Your task to perform on an android device: search for starred emails in the gmail app Image 0: 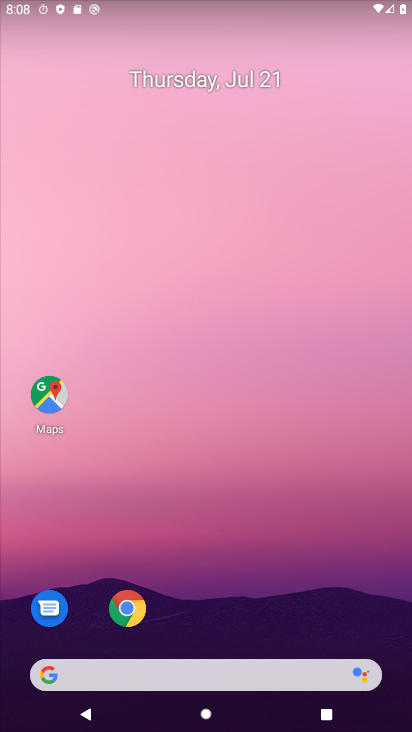
Step 0: press home button
Your task to perform on an android device: search for starred emails in the gmail app Image 1: 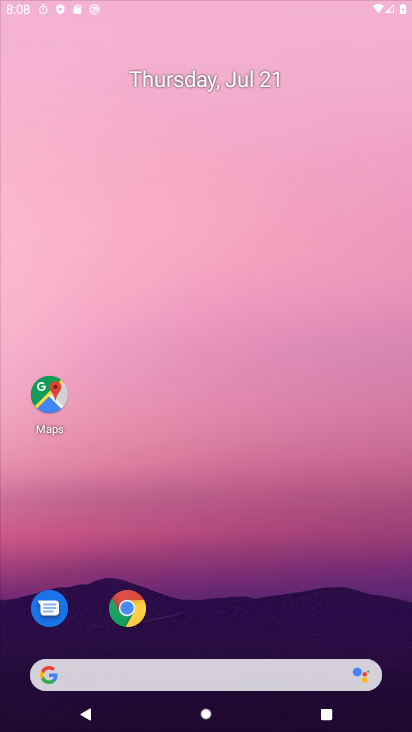
Step 1: click (49, 386)
Your task to perform on an android device: search for starred emails in the gmail app Image 2: 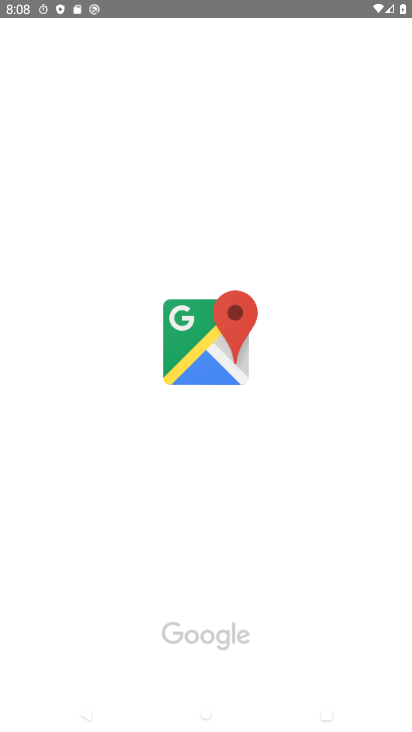
Step 2: press home button
Your task to perform on an android device: search for starred emails in the gmail app Image 3: 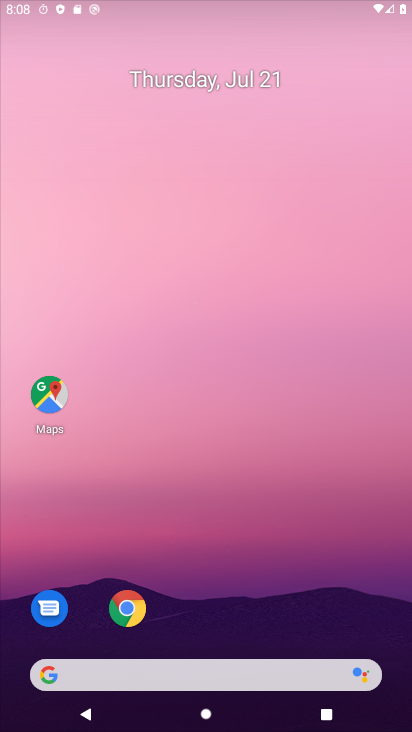
Step 3: drag from (273, 603) to (308, 0)
Your task to perform on an android device: search for starred emails in the gmail app Image 4: 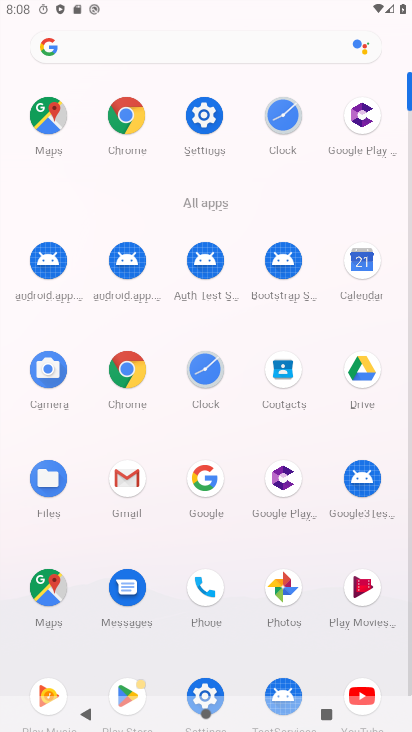
Step 4: click (130, 499)
Your task to perform on an android device: search for starred emails in the gmail app Image 5: 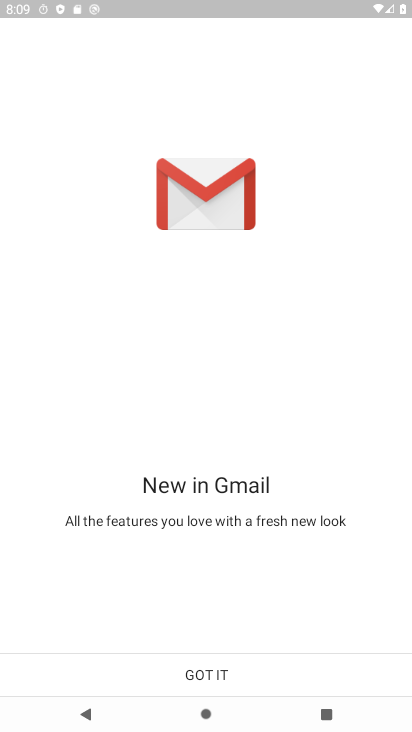
Step 5: click (274, 686)
Your task to perform on an android device: search for starred emails in the gmail app Image 6: 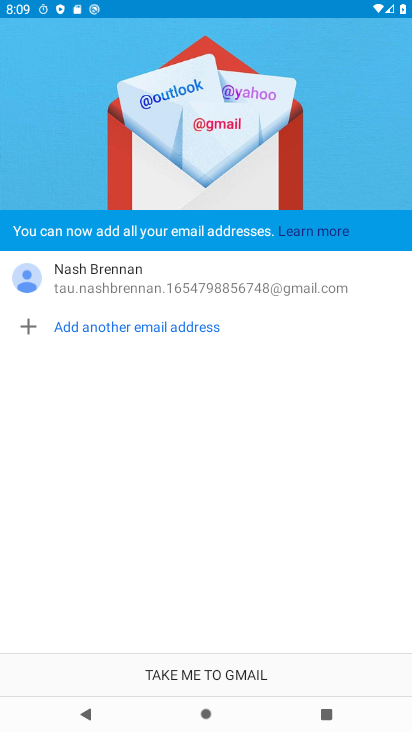
Step 6: click (274, 686)
Your task to perform on an android device: search for starred emails in the gmail app Image 7: 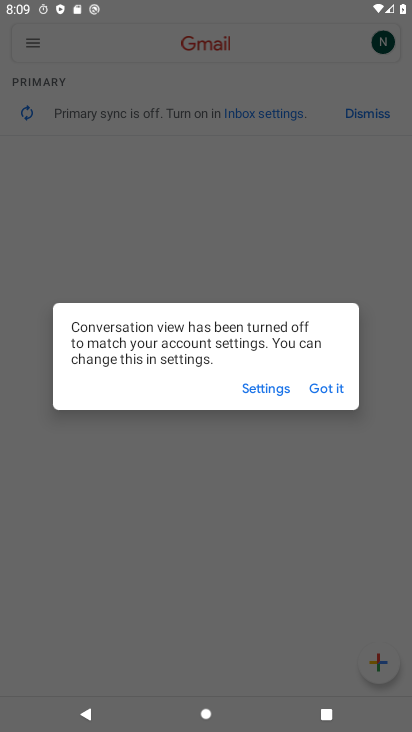
Step 7: click (312, 385)
Your task to perform on an android device: search for starred emails in the gmail app Image 8: 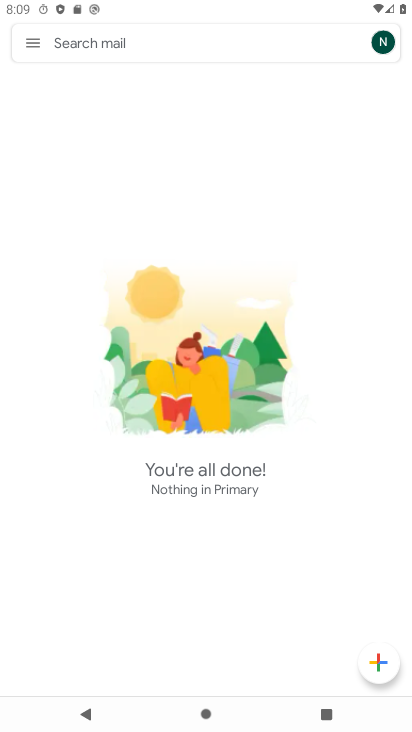
Step 8: task complete